Your task to perform on an android device: Open network settings Image 0: 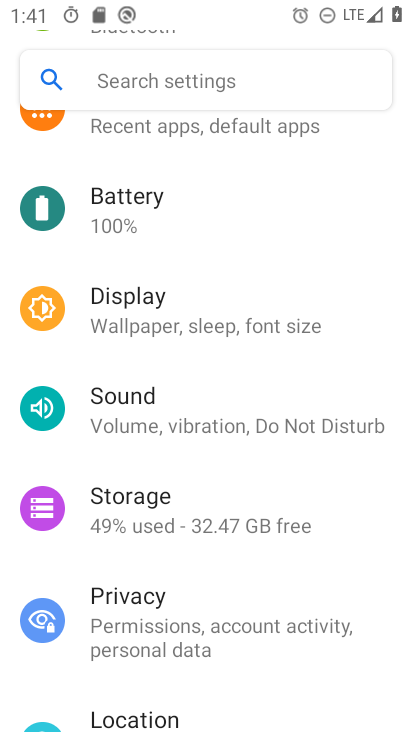
Step 0: press home button
Your task to perform on an android device: Open network settings Image 1: 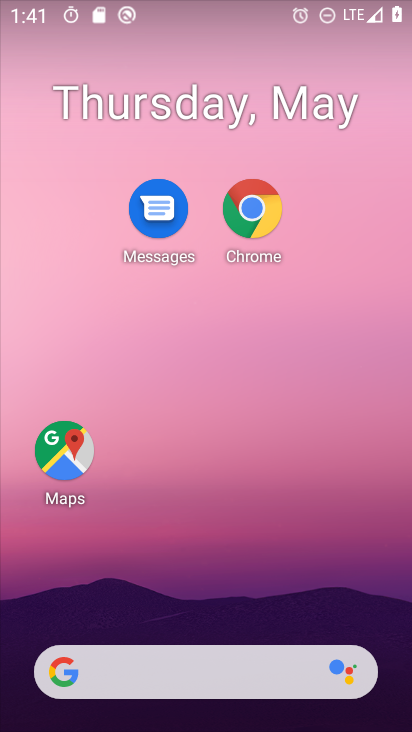
Step 1: drag from (218, 584) to (154, 103)
Your task to perform on an android device: Open network settings Image 2: 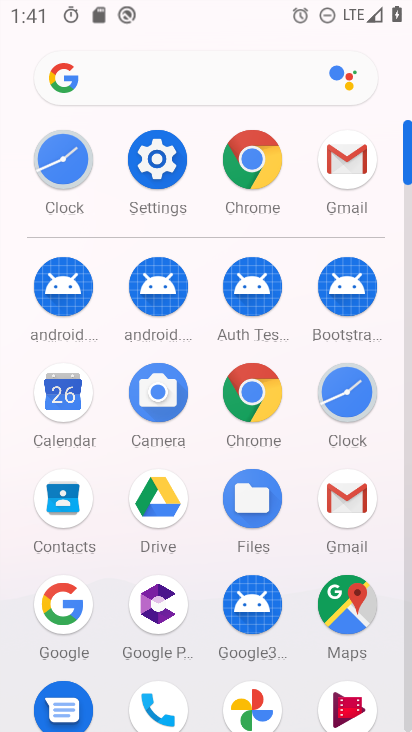
Step 2: click (160, 192)
Your task to perform on an android device: Open network settings Image 3: 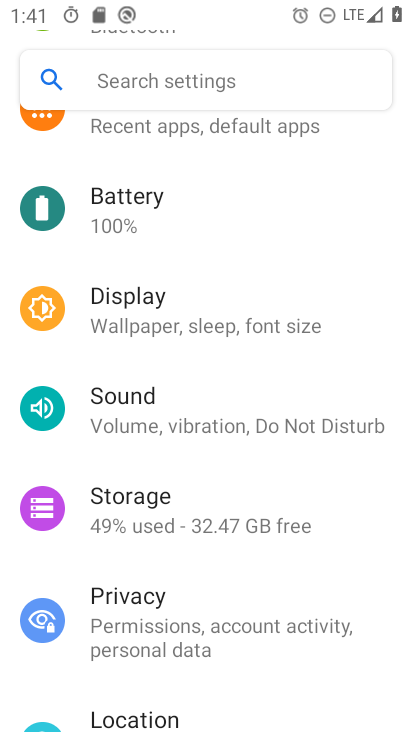
Step 3: drag from (156, 204) to (199, 580)
Your task to perform on an android device: Open network settings Image 4: 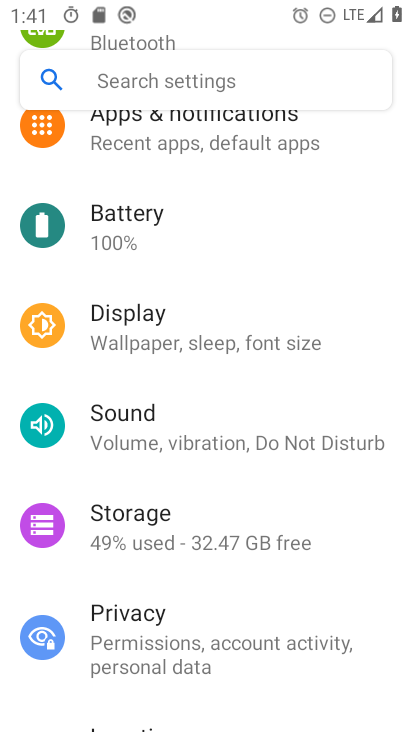
Step 4: drag from (199, 210) to (208, 551)
Your task to perform on an android device: Open network settings Image 5: 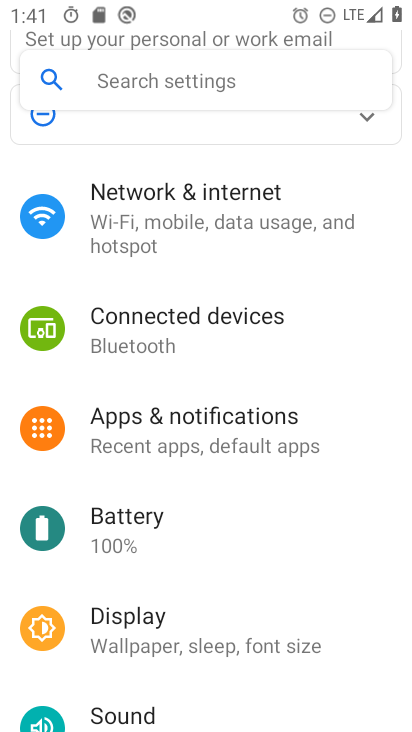
Step 5: click (190, 208)
Your task to perform on an android device: Open network settings Image 6: 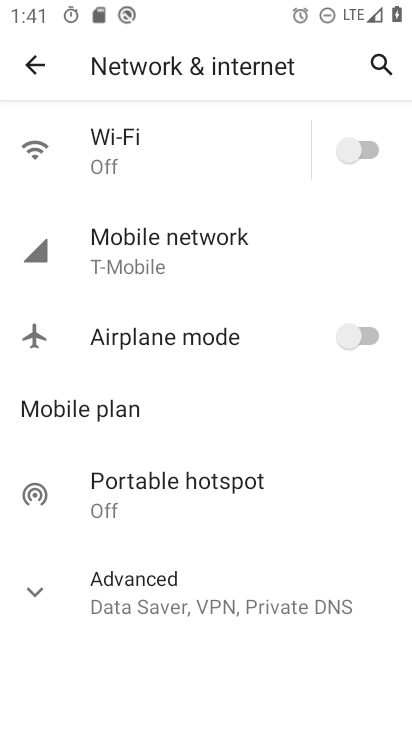
Step 6: task complete